Your task to perform on an android device: Go to display settings Image 0: 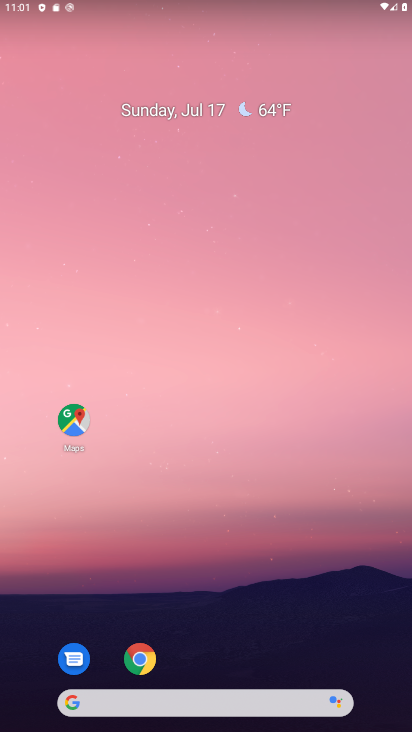
Step 0: drag from (254, 586) to (203, 75)
Your task to perform on an android device: Go to display settings Image 1: 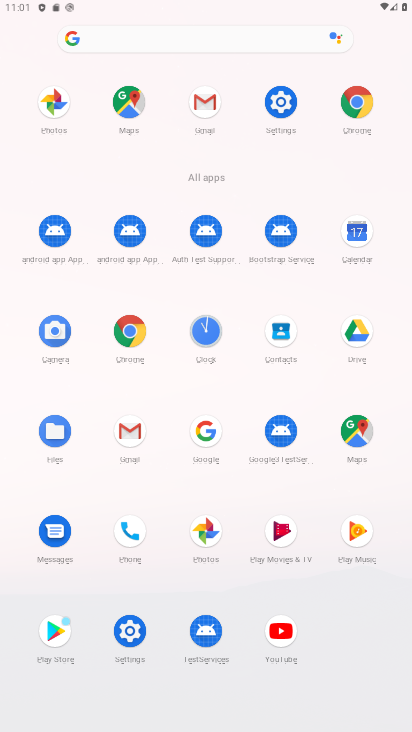
Step 1: click (279, 106)
Your task to perform on an android device: Go to display settings Image 2: 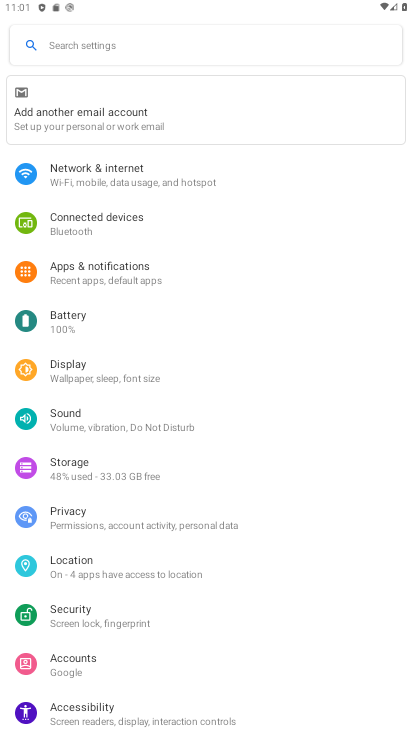
Step 2: click (90, 375)
Your task to perform on an android device: Go to display settings Image 3: 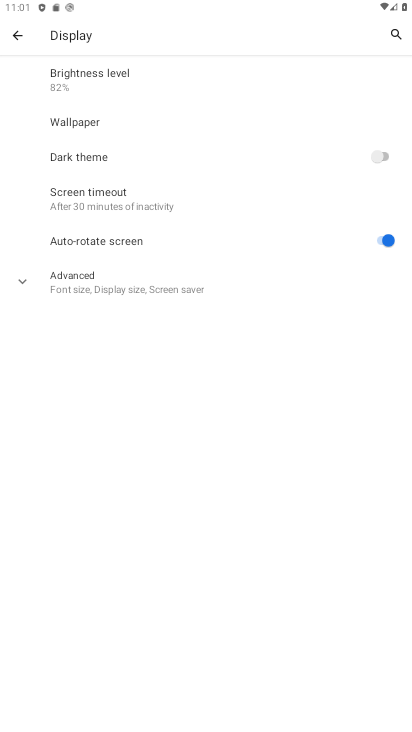
Step 3: task complete